Your task to perform on an android device: set the stopwatch Image 0: 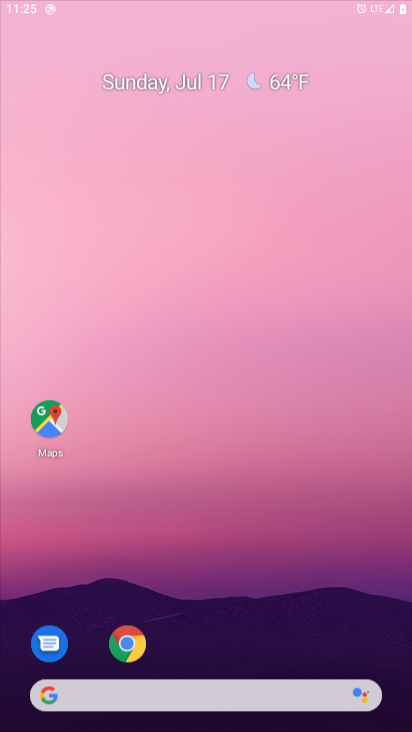
Step 0: press home button
Your task to perform on an android device: set the stopwatch Image 1: 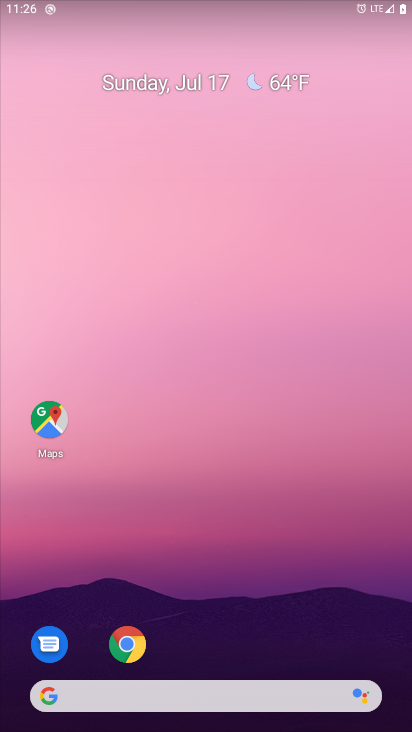
Step 1: drag from (261, 632) to (191, 57)
Your task to perform on an android device: set the stopwatch Image 2: 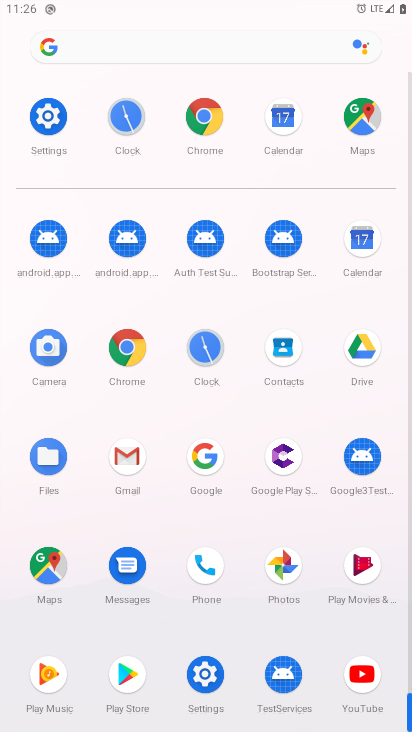
Step 2: click (129, 120)
Your task to perform on an android device: set the stopwatch Image 3: 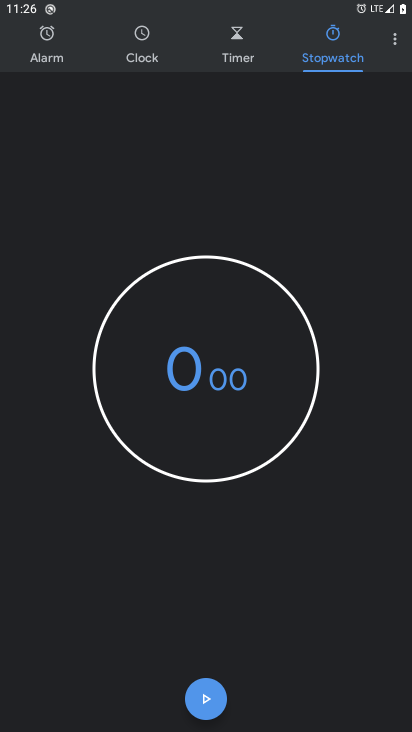
Step 3: task complete